Your task to perform on an android device: Search for seafood restaurants on Google Maps Image 0: 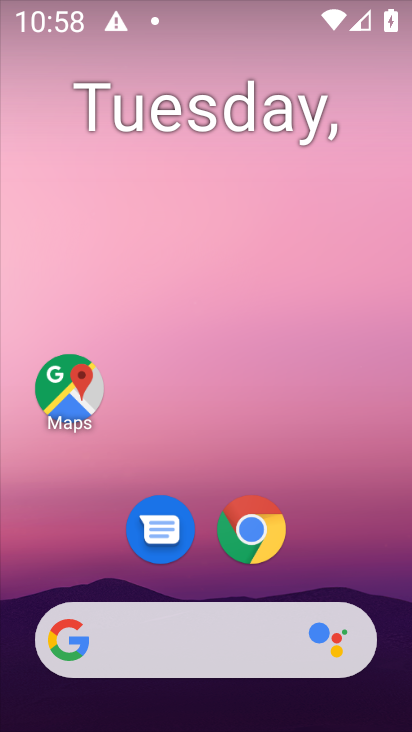
Step 0: drag from (383, 573) to (362, 95)
Your task to perform on an android device: Search for seafood restaurants on Google Maps Image 1: 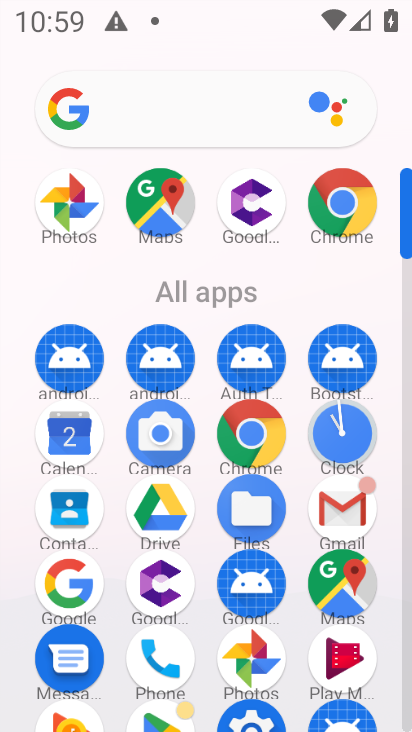
Step 1: click (153, 189)
Your task to perform on an android device: Search for seafood restaurants on Google Maps Image 2: 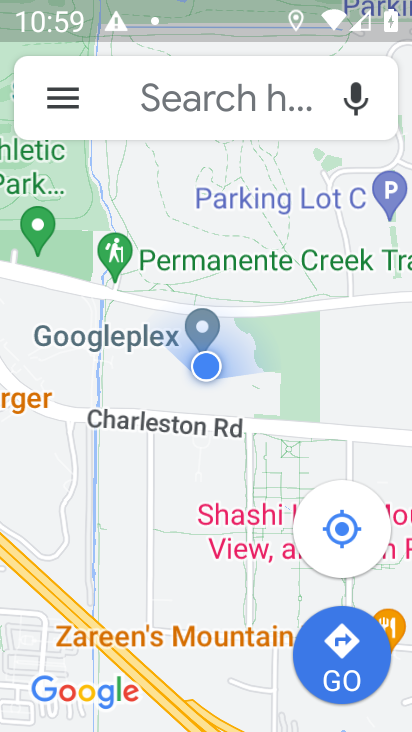
Step 2: click (179, 88)
Your task to perform on an android device: Search for seafood restaurants on Google Maps Image 3: 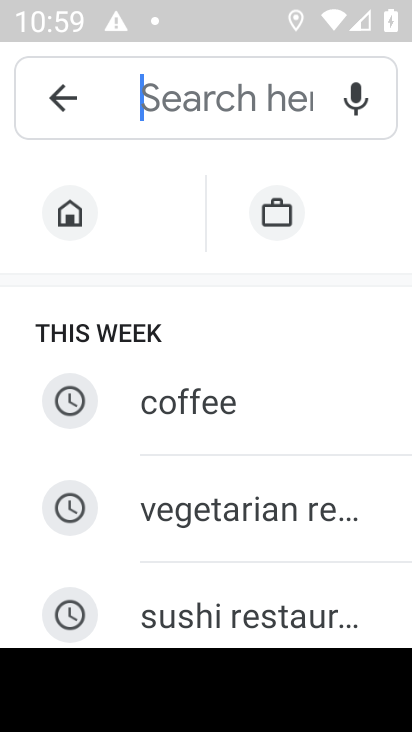
Step 3: type "seafood restaurants"
Your task to perform on an android device: Search for seafood restaurants on Google Maps Image 4: 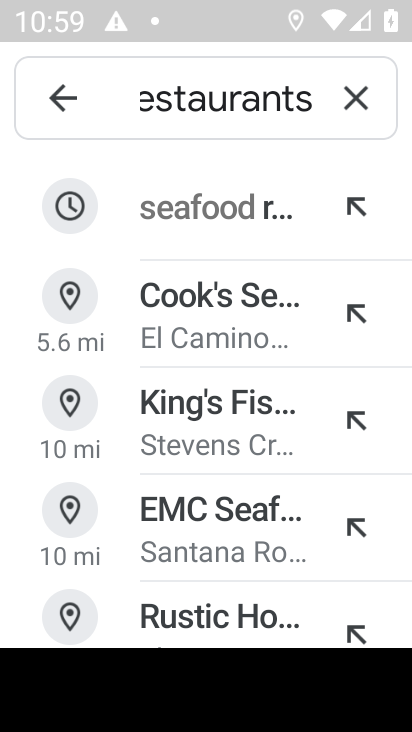
Step 4: click (238, 223)
Your task to perform on an android device: Search for seafood restaurants on Google Maps Image 5: 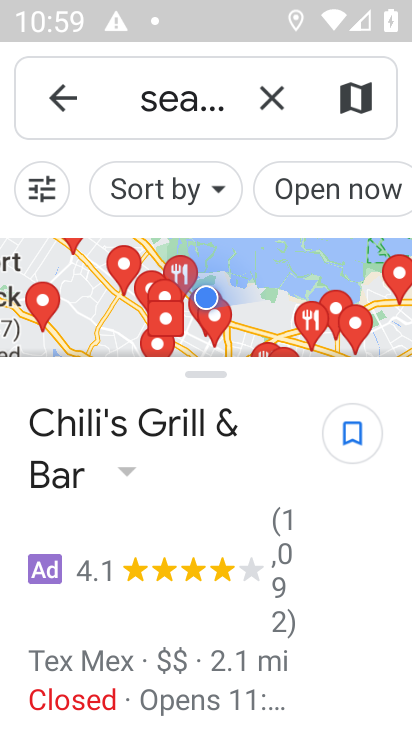
Step 5: task complete